Your task to perform on an android device: see sites visited before in the chrome app Image 0: 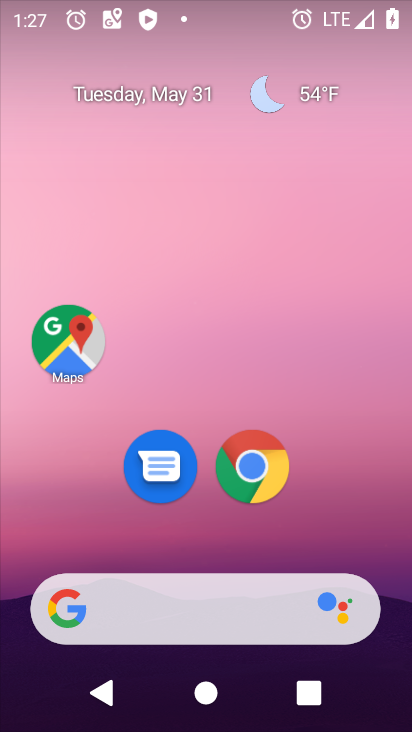
Step 0: click (285, 475)
Your task to perform on an android device: see sites visited before in the chrome app Image 1: 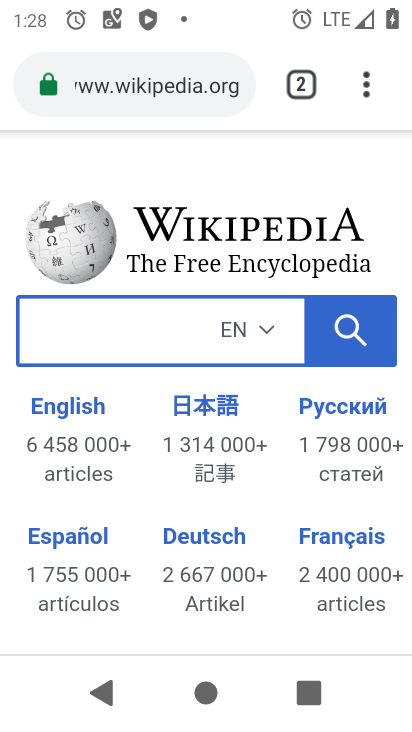
Step 1: task complete